Your task to perform on an android device: What's the weather today? Image 0: 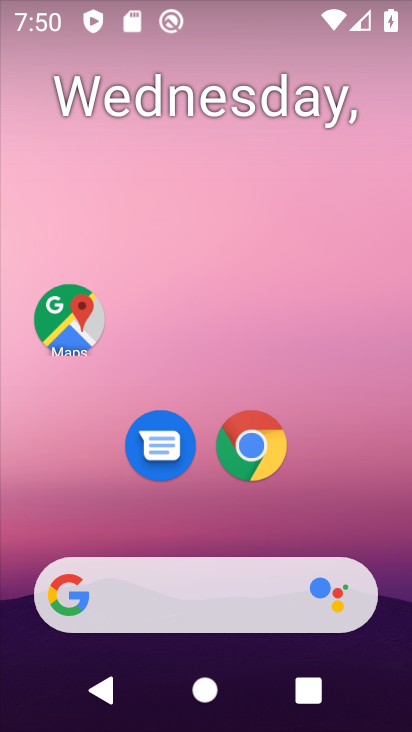
Step 0: drag from (277, 543) to (238, 228)
Your task to perform on an android device: What's the weather today? Image 1: 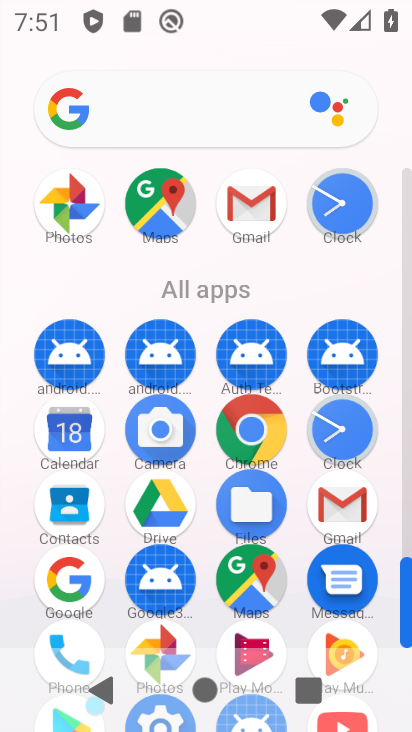
Step 1: click (229, 434)
Your task to perform on an android device: What's the weather today? Image 2: 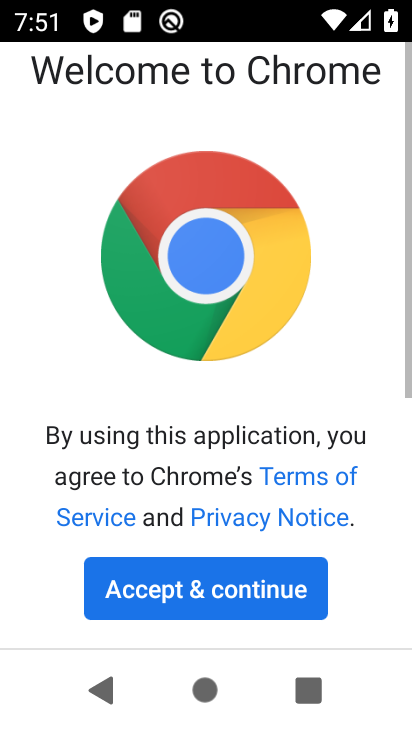
Step 2: click (166, 589)
Your task to perform on an android device: What's the weather today? Image 3: 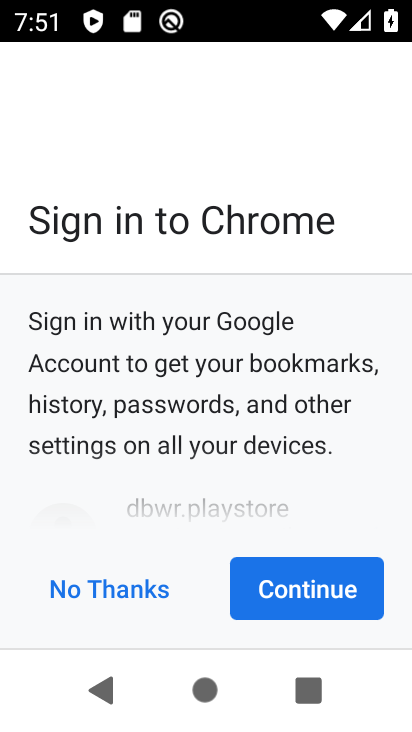
Step 3: click (313, 588)
Your task to perform on an android device: What's the weather today? Image 4: 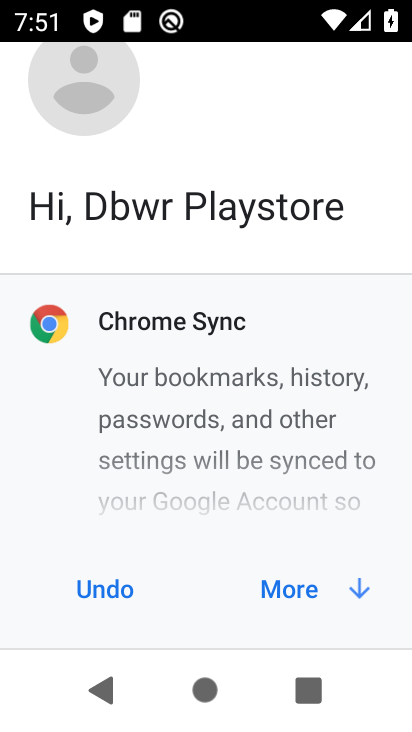
Step 4: click (255, 589)
Your task to perform on an android device: What's the weather today? Image 5: 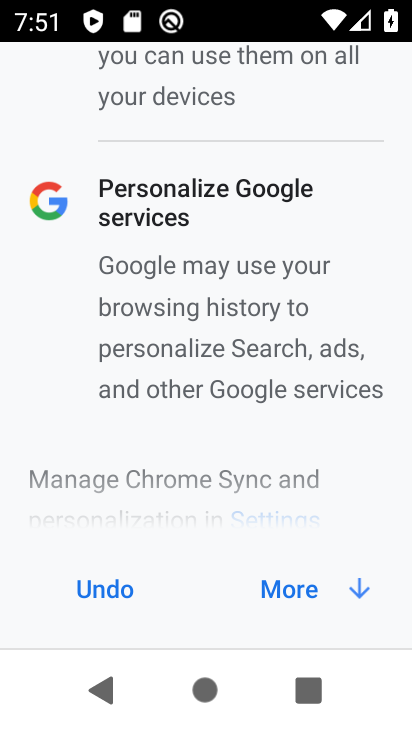
Step 5: click (267, 577)
Your task to perform on an android device: What's the weather today? Image 6: 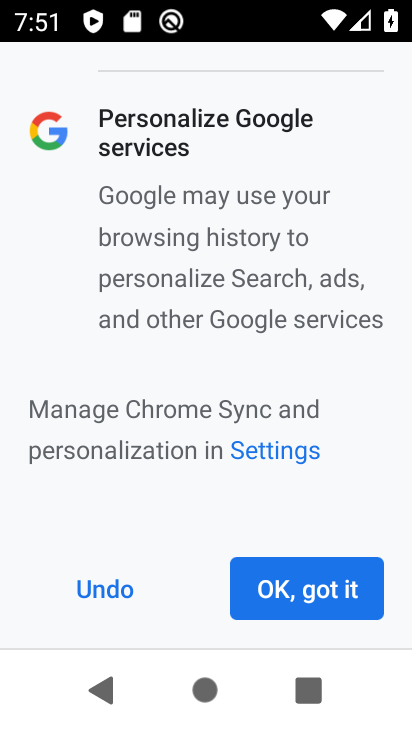
Step 6: click (340, 581)
Your task to perform on an android device: What's the weather today? Image 7: 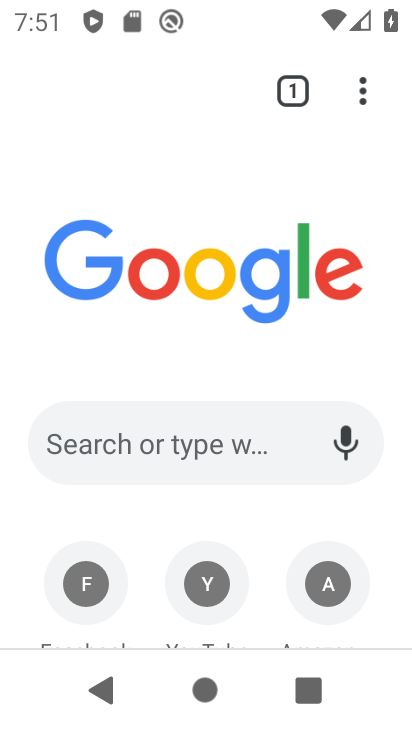
Step 7: click (126, 79)
Your task to perform on an android device: What's the weather today? Image 8: 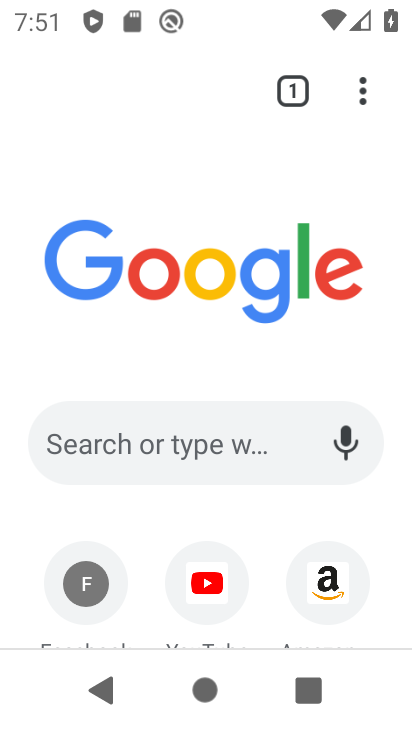
Step 8: click (198, 423)
Your task to perform on an android device: What's the weather today? Image 9: 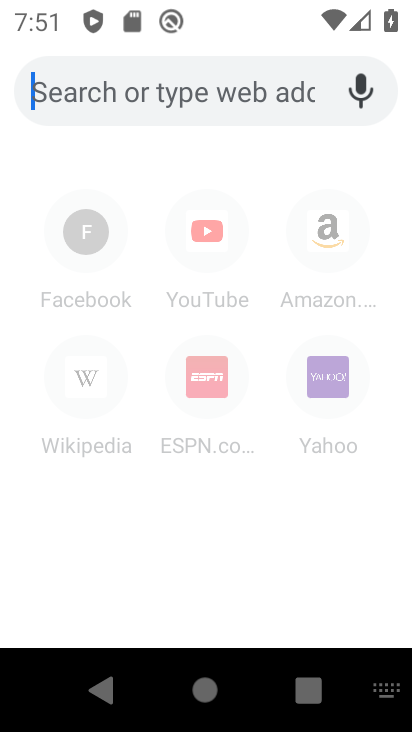
Step 9: type "What's the weather today?"
Your task to perform on an android device: What's the weather today? Image 10: 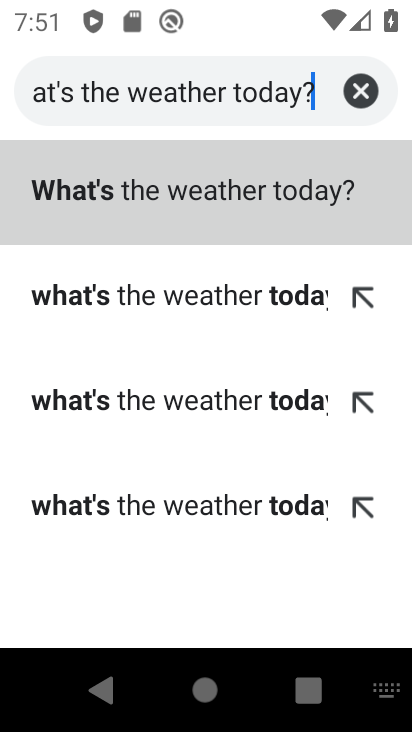
Step 10: click (121, 208)
Your task to perform on an android device: What's the weather today? Image 11: 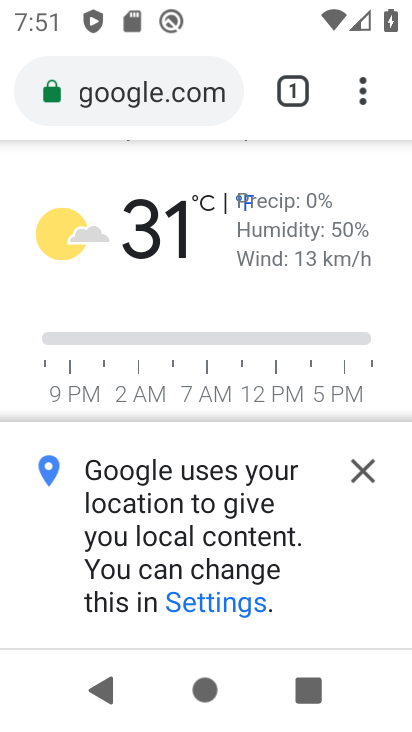
Step 11: task complete